Your task to perform on an android device: turn on bluetooth scan Image 0: 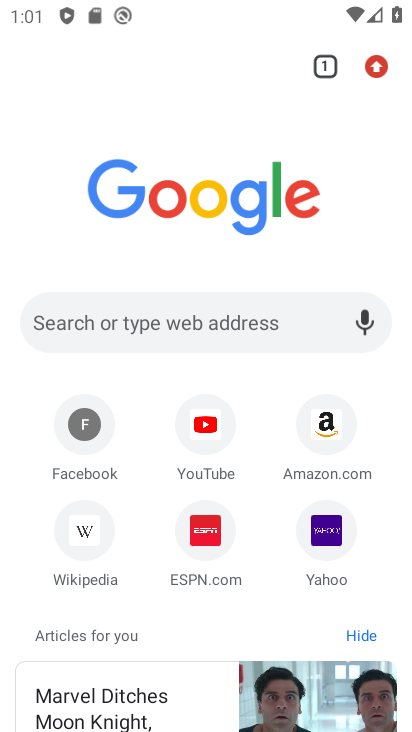
Step 0: press home button
Your task to perform on an android device: turn on bluetooth scan Image 1: 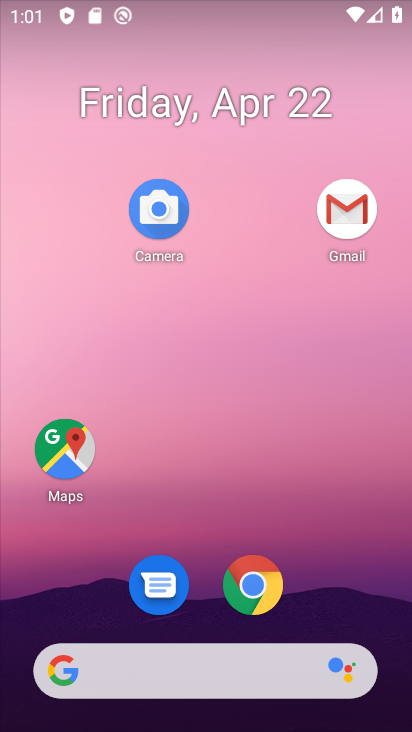
Step 1: drag from (333, 527) to (237, 155)
Your task to perform on an android device: turn on bluetooth scan Image 2: 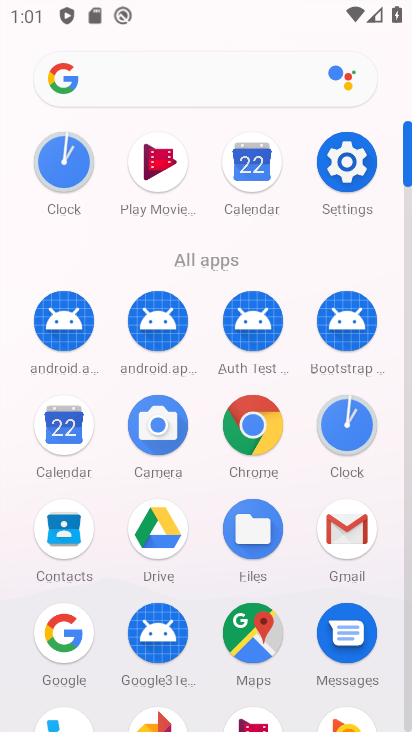
Step 2: click (342, 166)
Your task to perform on an android device: turn on bluetooth scan Image 3: 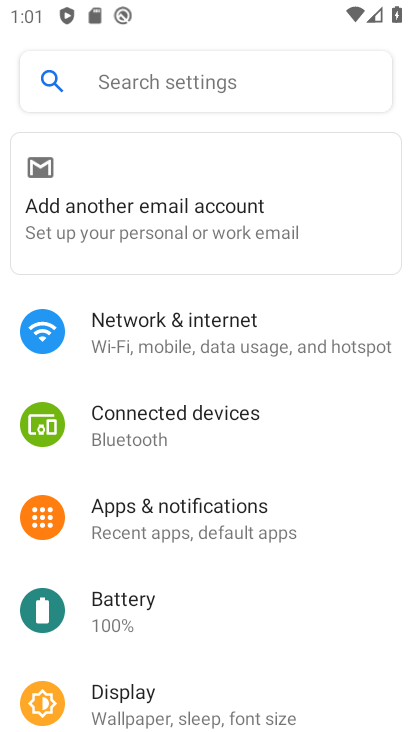
Step 3: drag from (261, 644) to (289, 120)
Your task to perform on an android device: turn on bluetooth scan Image 4: 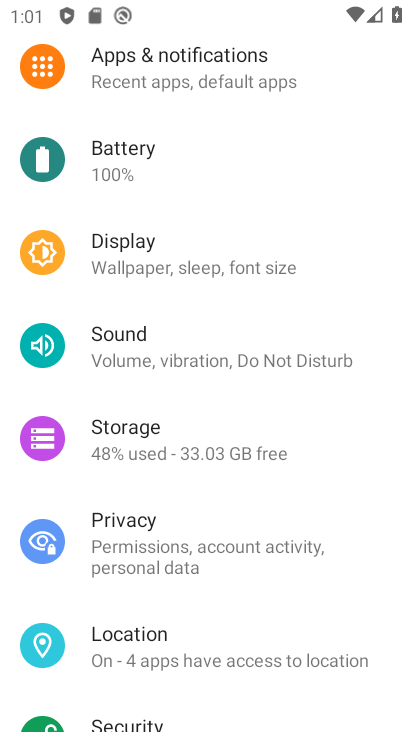
Step 4: click (215, 644)
Your task to perform on an android device: turn on bluetooth scan Image 5: 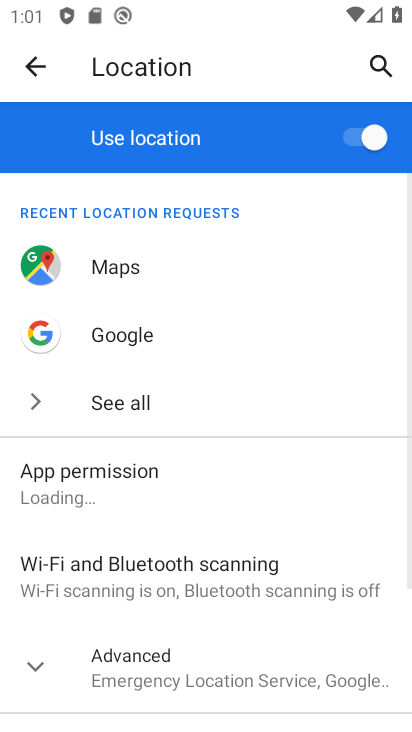
Step 5: click (260, 586)
Your task to perform on an android device: turn on bluetooth scan Image 6: 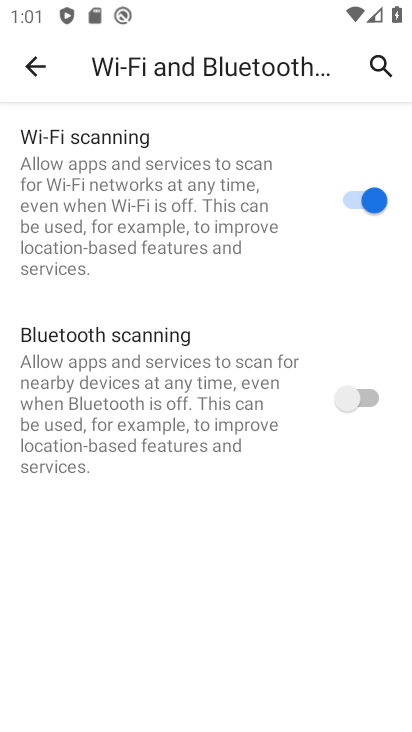
Step 6: click (368, 381)
Your task to perform on an android device: turn on bluetooth scan Image 7: 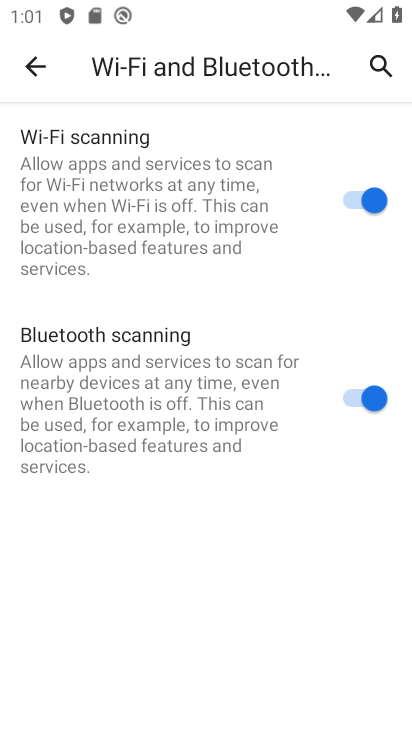
Step 7: task complete